Your task to perform on an android device: Open Google Chrome and click the shortcut for Amazon.com Image 0: 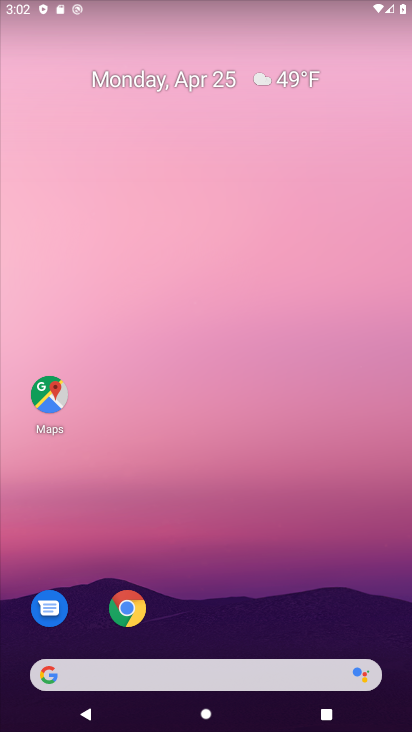
Step 0: click (148, 614)
Your task to perform on an android device: Open Google Chrome and click the shortcut for Amazon.com Image 1: 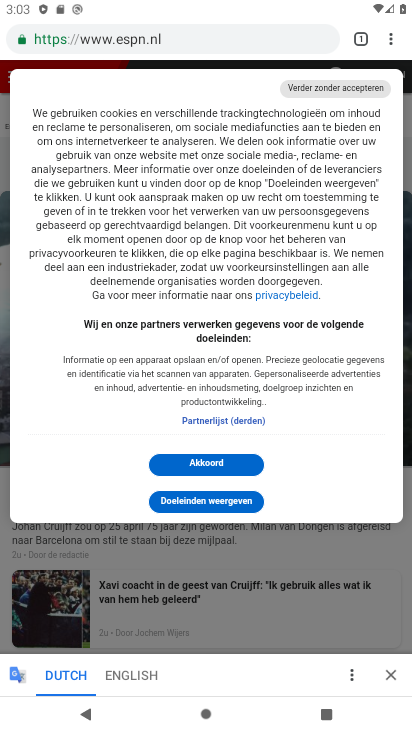
Step 1: click (362, 36)
Your task to perform on an android device: Open Google Chrome and click the shortcut for Amazon.com Image 2: 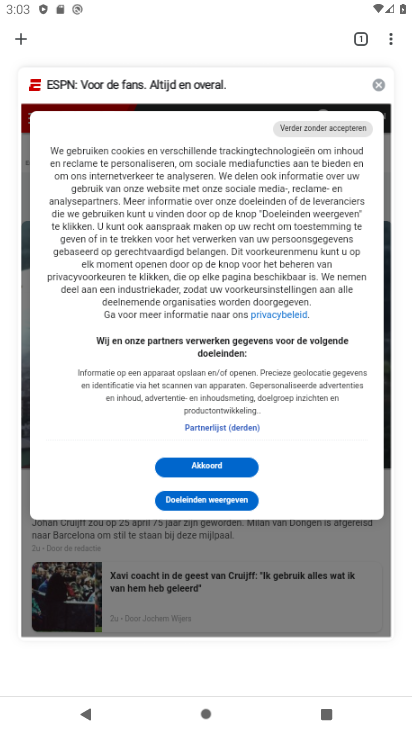
Step 2: click (21, 49)
Your task to perform on an android device: Open Google Chrome and click the shortcut for Amazon.com Image 3: 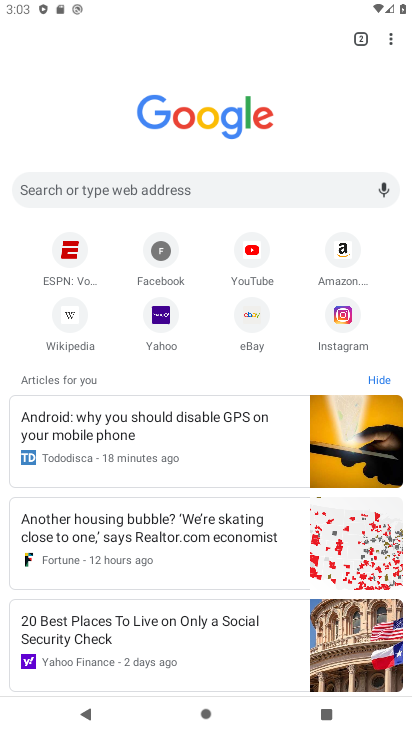
Step 3: click (349, 264)
Your task to perform on an android device: Open Google Chrome and click the shortcut for Amazon.com Image 4: 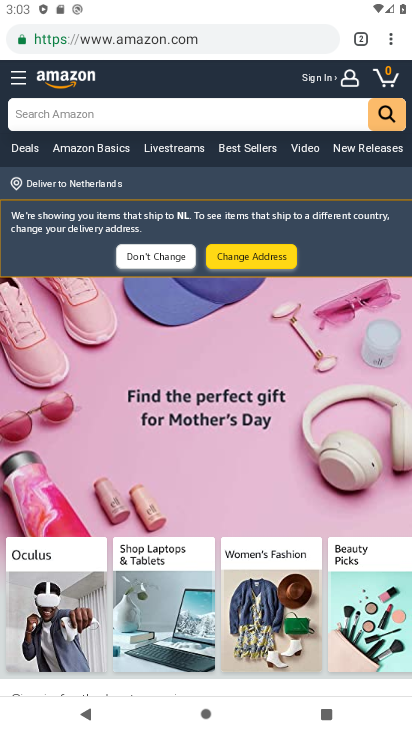
Step 4: task complete